Your task to perform on an android device: Open privacy settings Image 0: 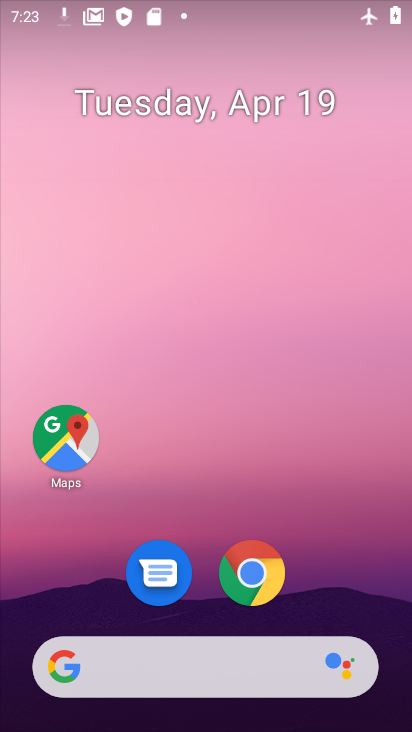
Step 0: drag from (286, 412) to (406, 123)
Your task to perform on an android device: Open privacy settings Image 1: 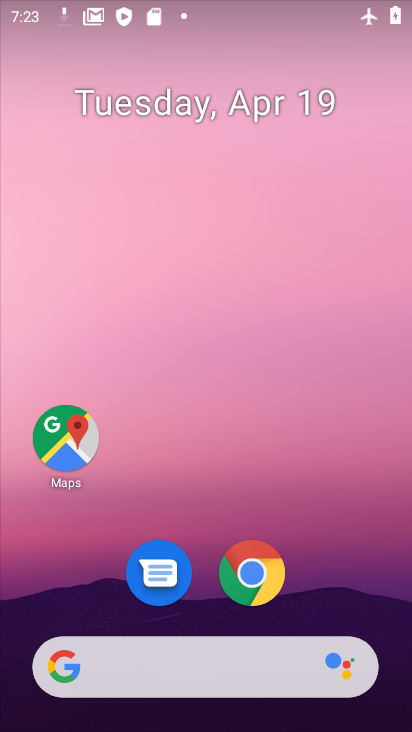
Step 1: drag from (286, 585) to (354, 217)
Your task to perform on an android device: Open privacy settings Image 2: 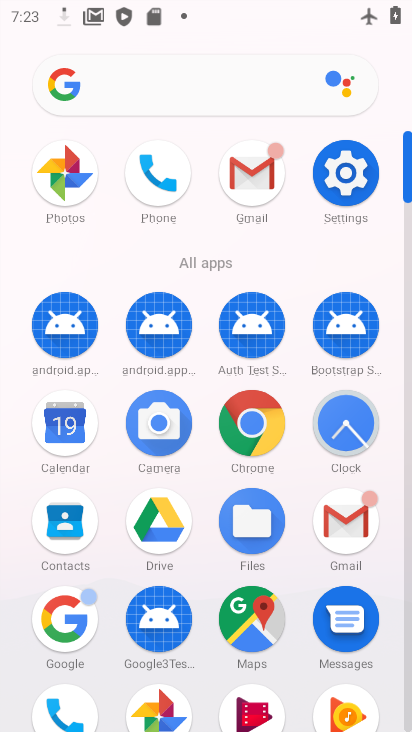
Step 2: click (343, 191)
Your task to perform on an android device: Open privacy settings Image 3: 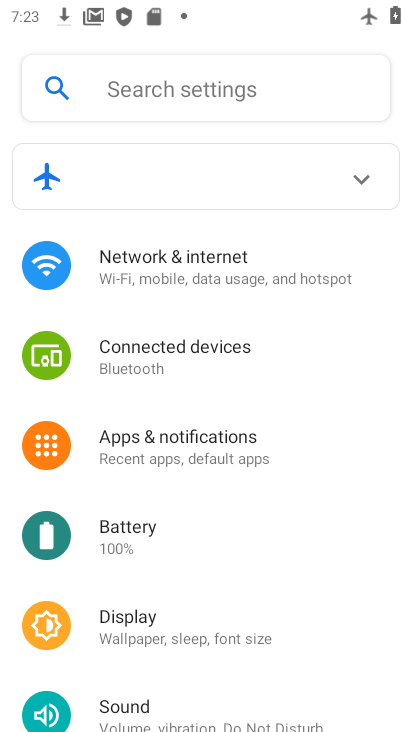
Step 3: click (367, 184)
Your task to perform on an android device: Open privacy settings Image 4: 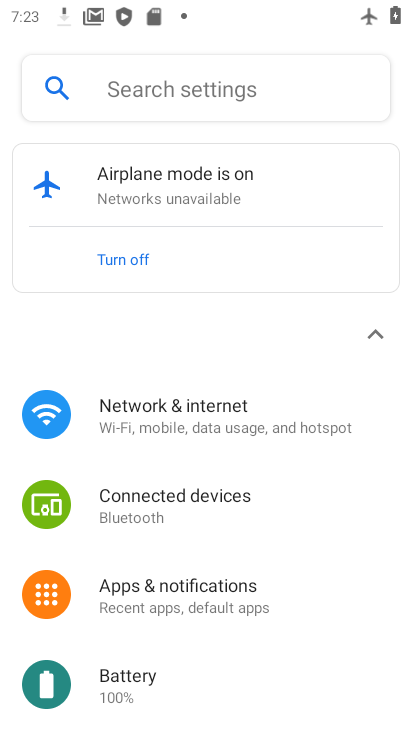
Step 4: click (80, 263)
Your task to perform on an android device: Open privacy settings Image 5: 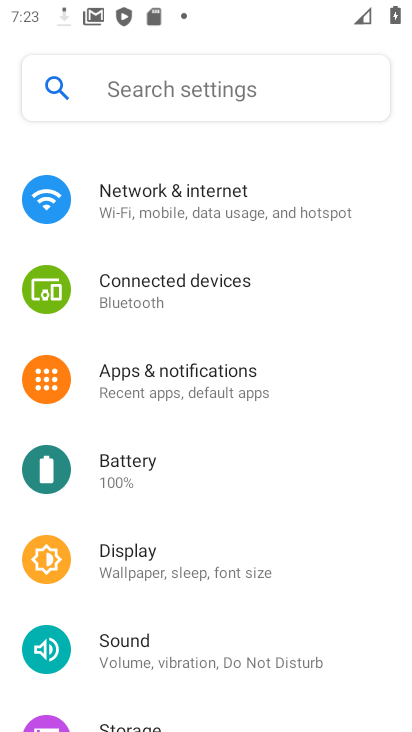
Step 5: drag from (163, 573) to (238, 353)
Your task to perform on an android device: Open privacy settings Image 6: 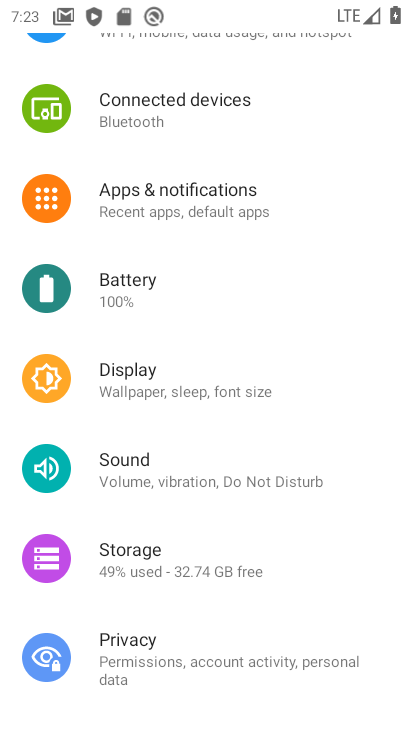
Step 6: click (123, 657)
Your task to perform on an android device: Open privacy settings Image 7: 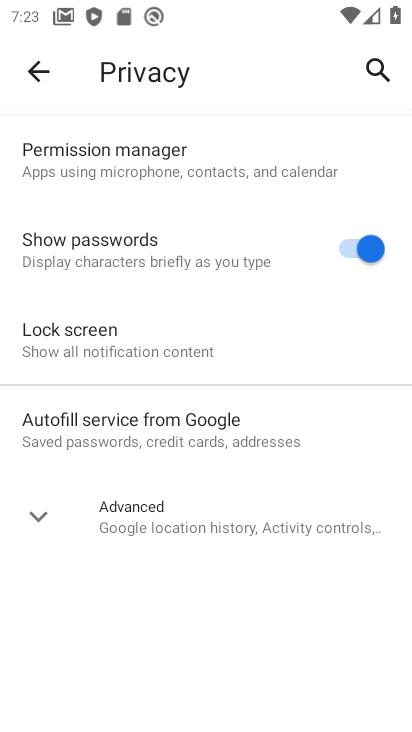
Step 7: click (33, 520)
Your task to perform on an android device: Open privacy settings Image 8: 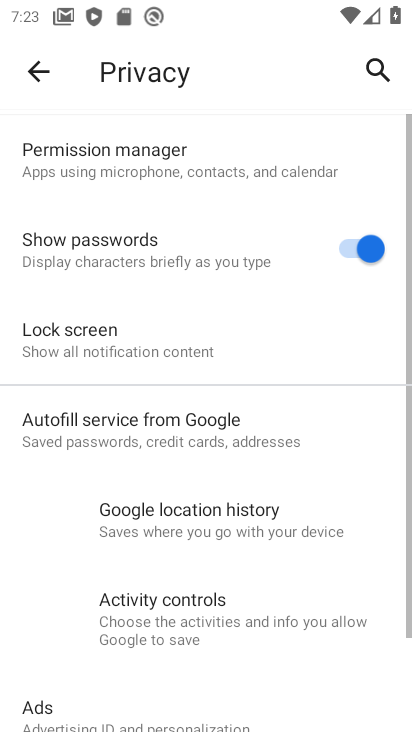
Step 8: task complete